Your task to perform on an android device: Open the calendar and show me this week's events? Image 0: 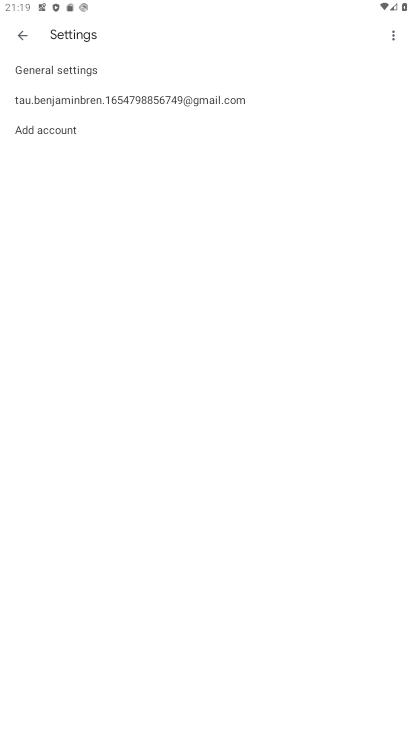
Step 0: press home button
Your task to perform on an android device: Open the calendar and show me this week's events? Image 1: 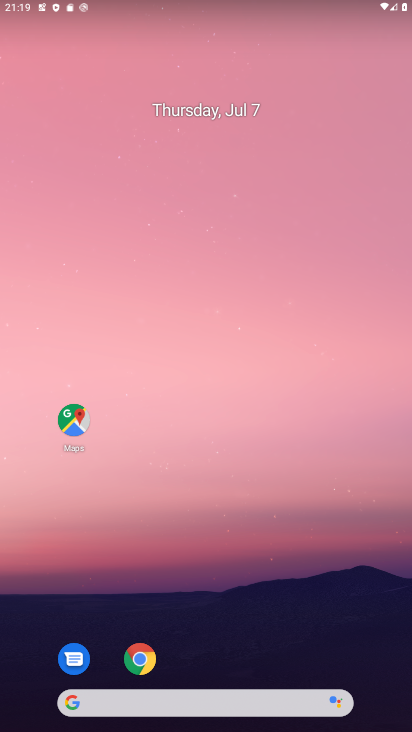
Step 1: drag from (232, 538) to (226, 20)
Your task to perform on an android device: Open the calendar and show me this week's events? Image 2: 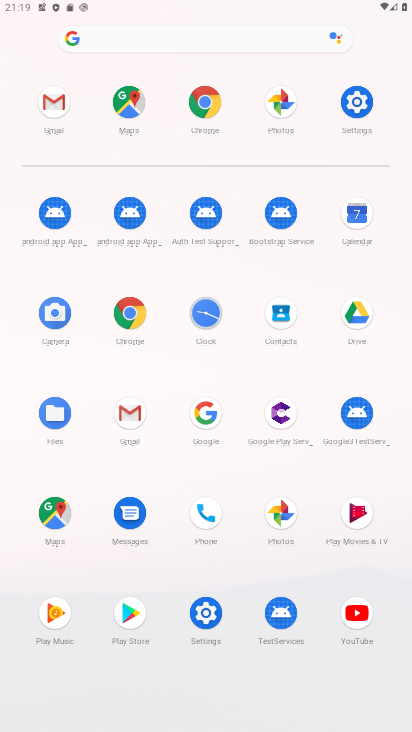
Step 2: click (363, 213)
Your task to perform on an android device: Open the calendar and show me this week's events? Image 3: 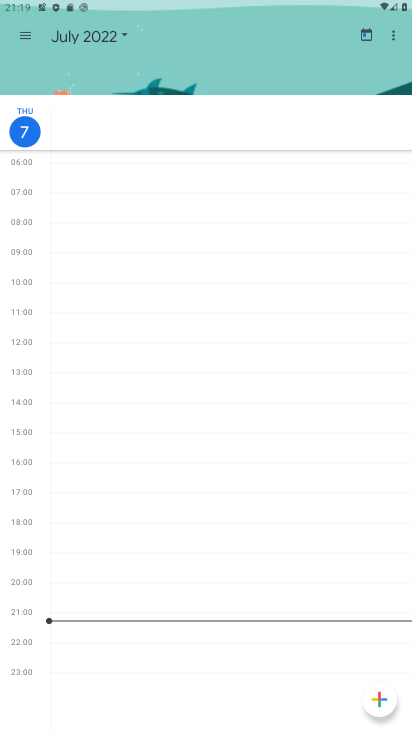
Step 3: click (32, 36)
Your task to perform on an android device: Open the calendar and show me this week's events? Image 4: 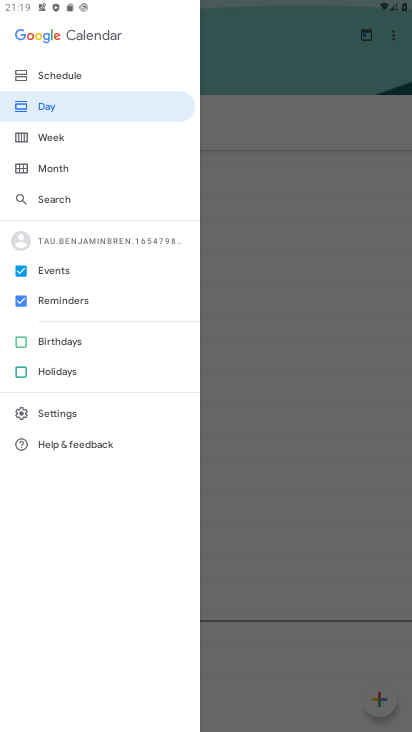
Step 4: click (45, 303)
Your task to perform on an android device: Open the calendar and show me this week's events? Image 5: 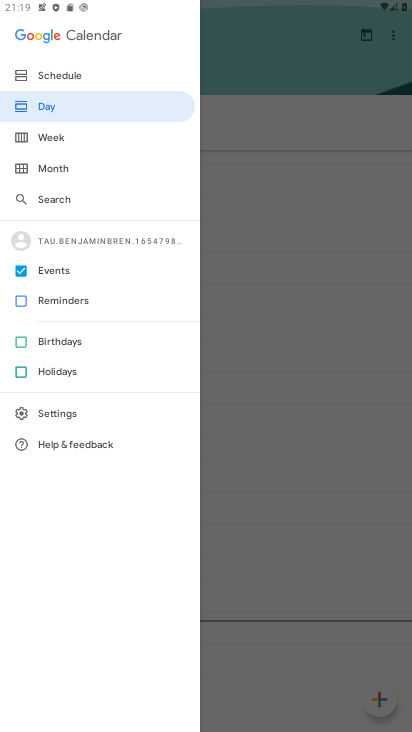
Step 5: click (45, 142)
Your task to perform on an android device: Open the calendar and show me this week's events? Image 6: 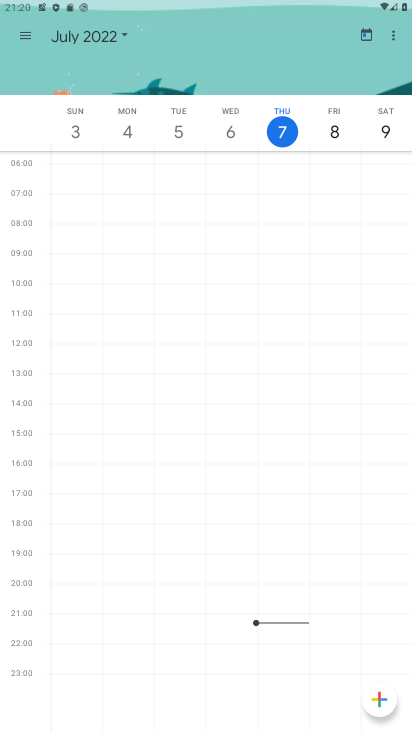
Step 6: task complete